Your task to perform on an android device: change the clock display to show seconds Image 0: 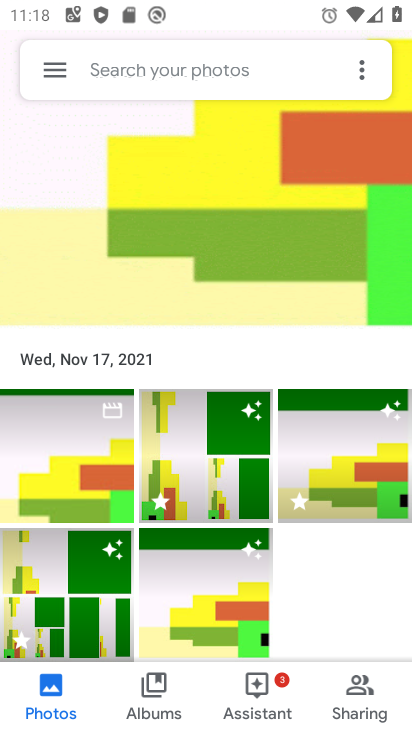
Step 0: press home button
Your task to perform on an android device: change the clock display to show seconds Image 1: 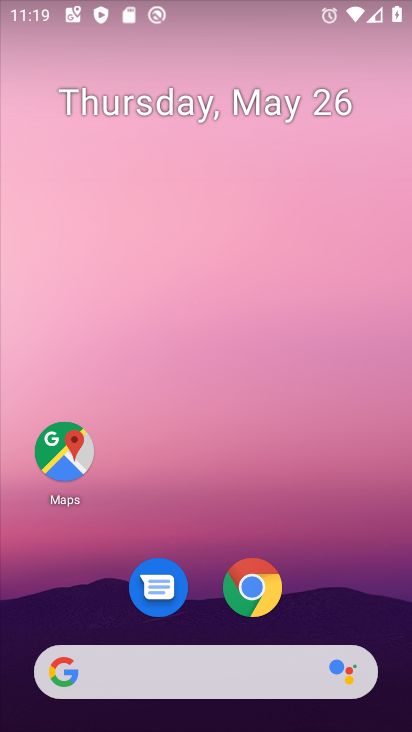
Step 1: drag from (313, 708) to (381, 52)
Your task to perform on an android device: change the clock display to show seconds Image 2: 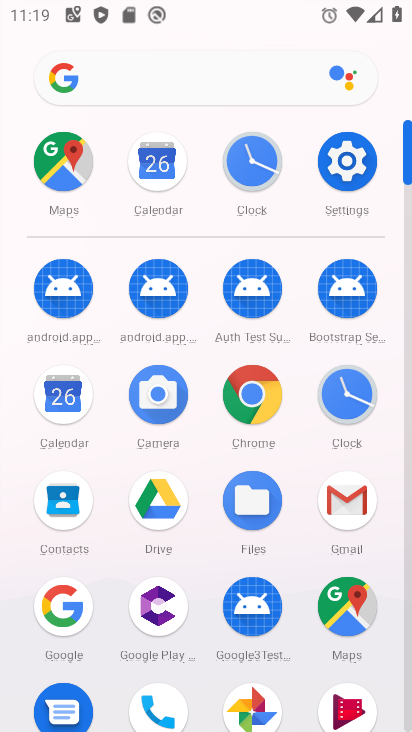
Step 2: click (336, 387)
Your task to perform on an android device: change the clock display to show seconds Image 3: 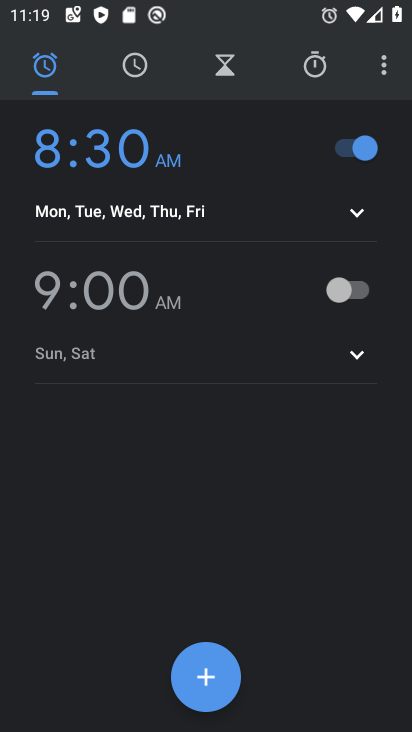
Step 3: click (383, 87)
Your task to perform on an android device: change the clock display to show seconds Image 4: 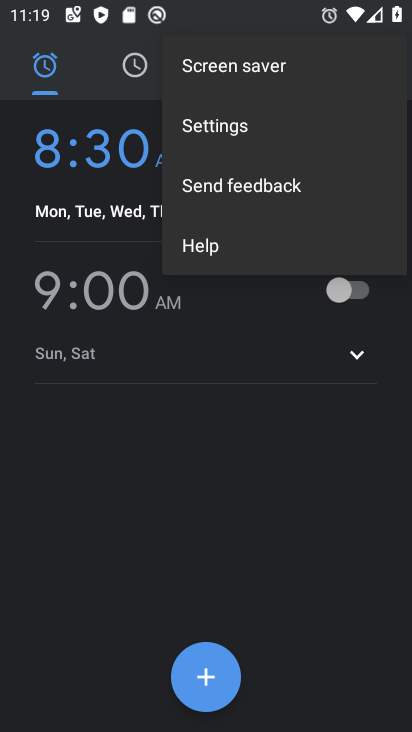
Step 4: click (234, 129)
Your task to perform on an android device: change the clock display to show seconds Image 5: 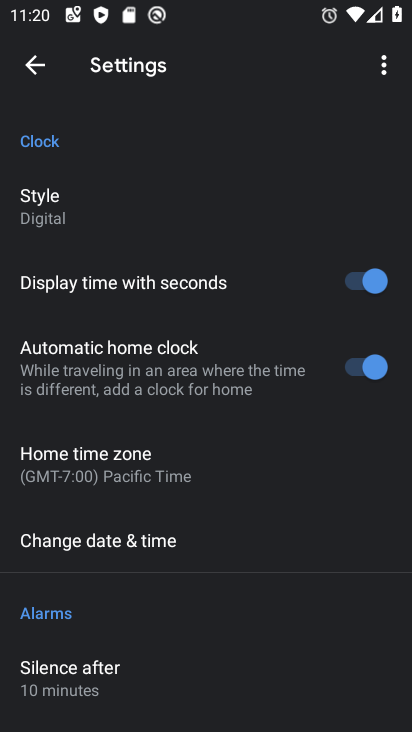
Step 5: click (127, 211)
Your task to perform on an android device: change the clock display to show seconds Image 6: 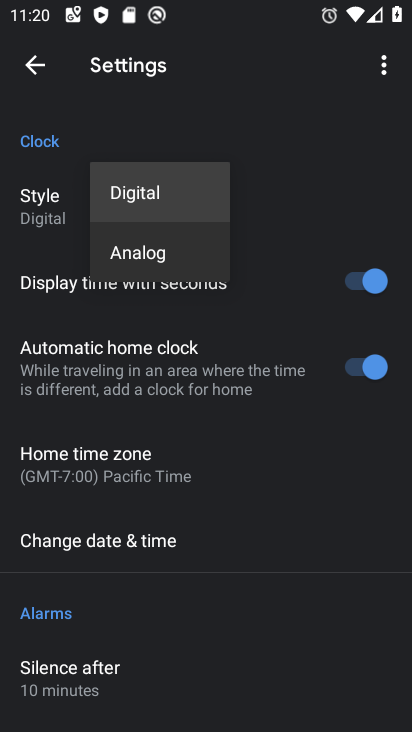
Step 6: click (143, 245)
Your task to perform on an android device: change the clock display to show seconds Image 7: 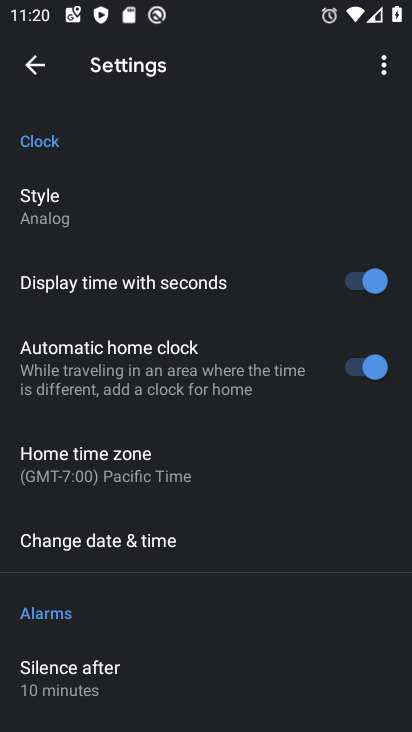
Step 7: task complete